Your task to perform on an android device: find which apps use the phone's location Image 0: 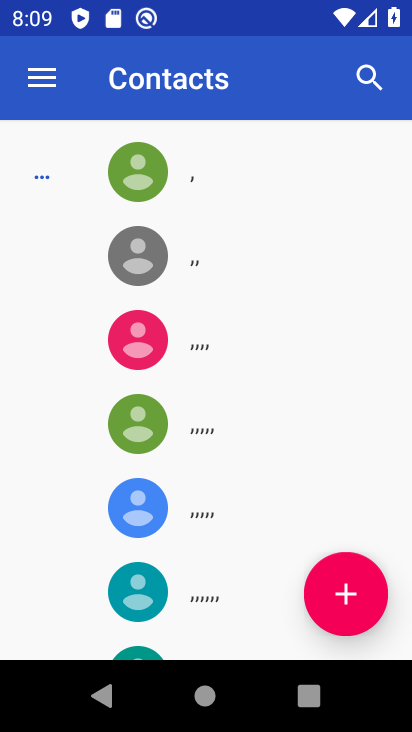
Step 0: press home button
Your task to perform on an android device: find which apps use the phone's location Image 1: 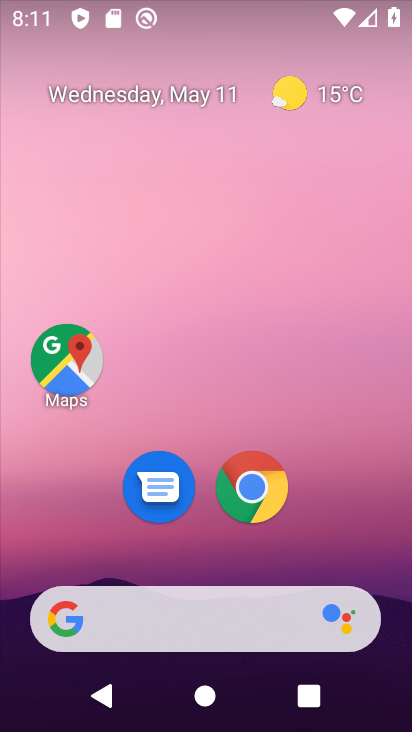
Step 1: drag from (241, 673) to (258, 225)
Your task to perform on an android device: find which apps use the phone's location Image 2: 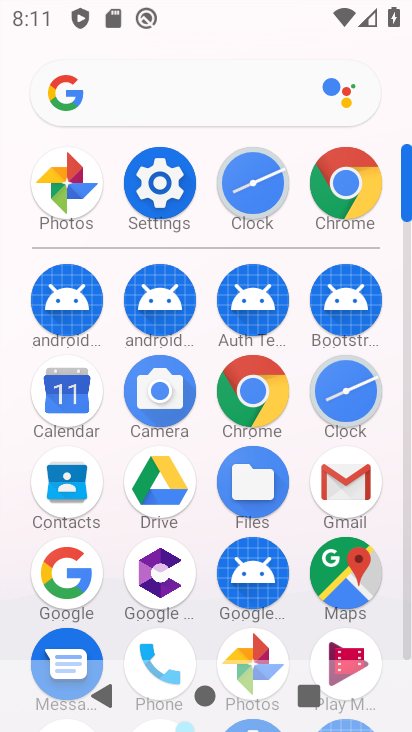
Step 2: click (160, 186)
Your task to perform on an android device: find which apps use the phone's location Image 3: 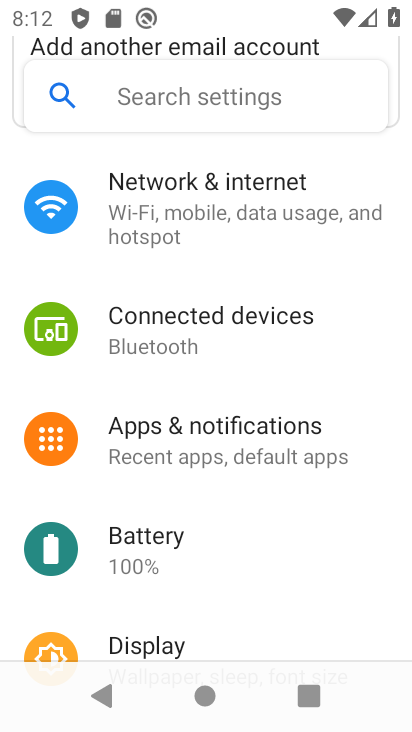
Step 3: click (162, 87)
Your task to perform on an android device: find which apps use the phone's location Image 4: 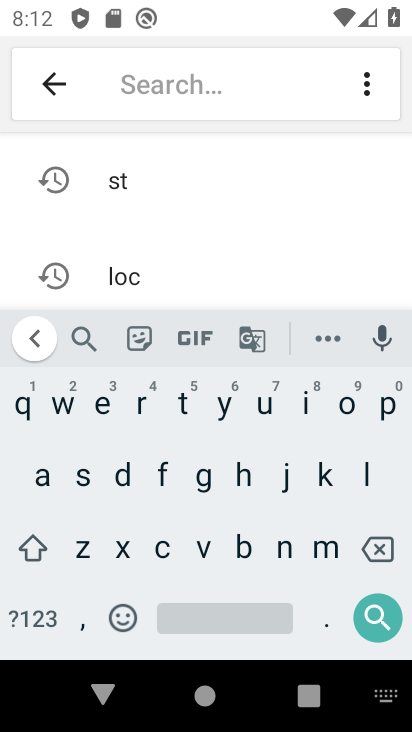
Step 4: click (134, 269)
Your task to perform on an android device: find which apps use the phone's location Image 5: 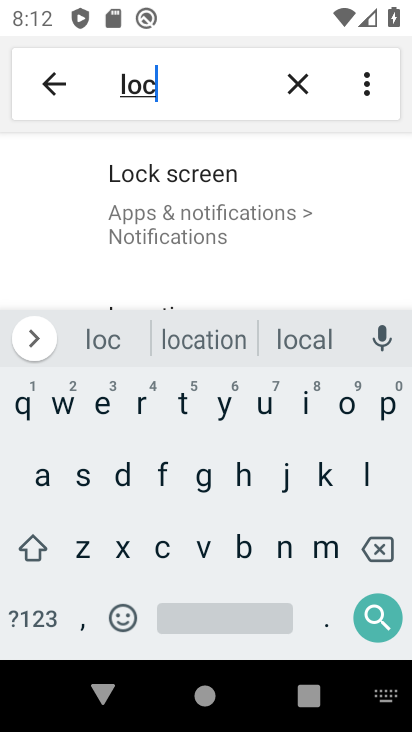
Step 5: click (159, 303)
Your task to perform on an android device: find which apps use the phone's location Image 6: 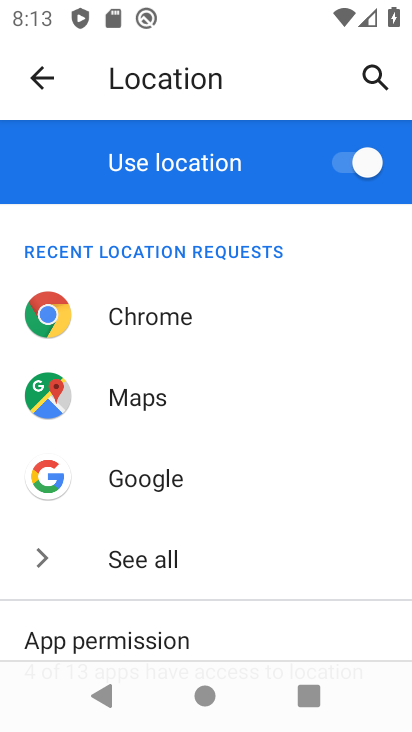
Step 6: task complete